Your task to perform on an android device: open chrome privacy settings Image 0: 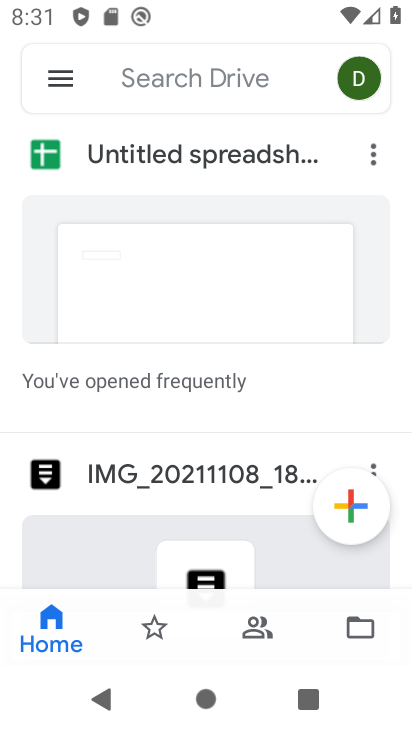
Step 0: press home button
Your task to perform on an android device: open chrome privacy settings Image 1: 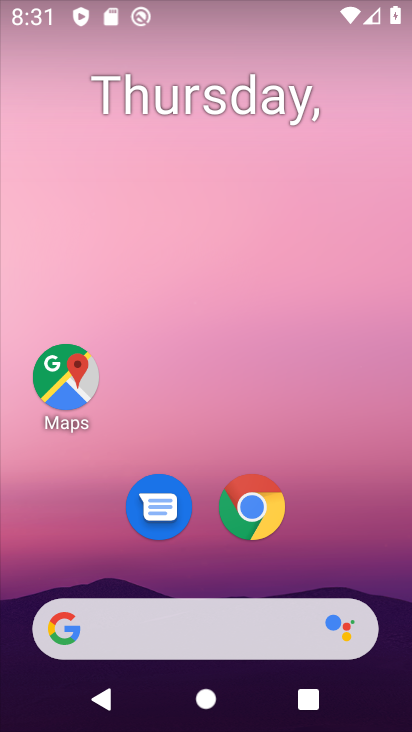
Step 1: click (256, 516)
Your task to perform on an android device: open chrome privacy settings Image 2: 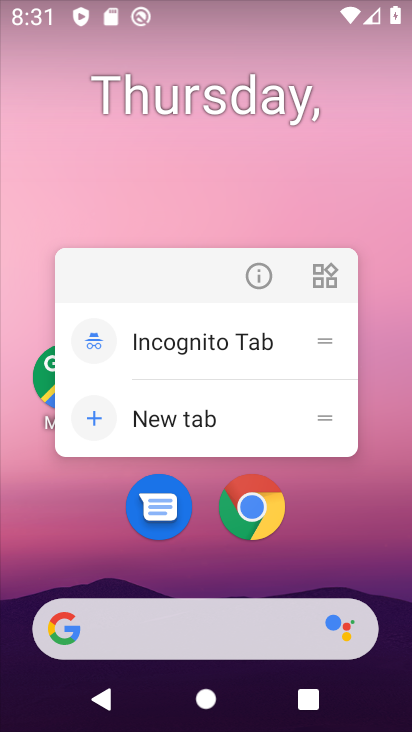
Step 2: click (266, 282)
Your task to perform on an android device: open chrome privacy settings Image 3: 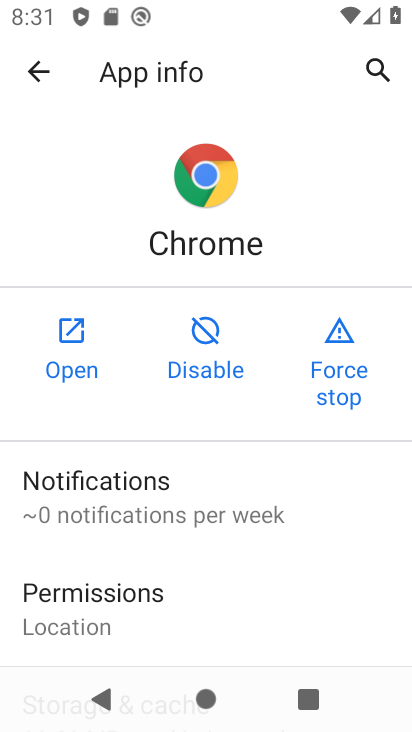
Step 3: click (85, 343)
Your task to perform on an android device: open chrome privacy settings Image 4: 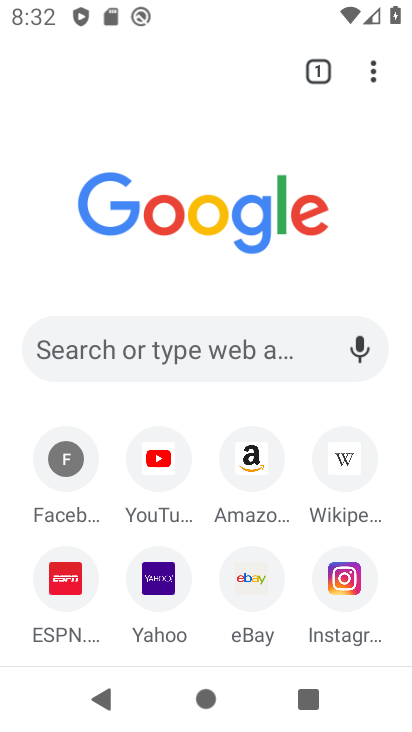
Step 4: click (378, 75)
Your task to perform on an android device: open chrome privacy settings Image 5: 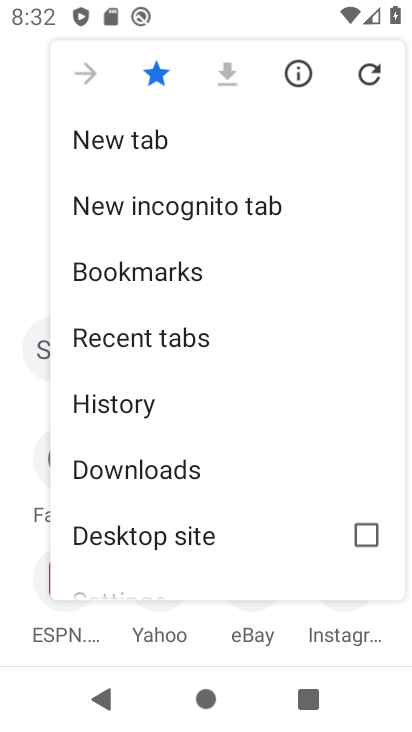
Step 5: drag from (155, 490) to (203, 228)
Your task to perform on an android device: open chrome privacy settings Image 6: 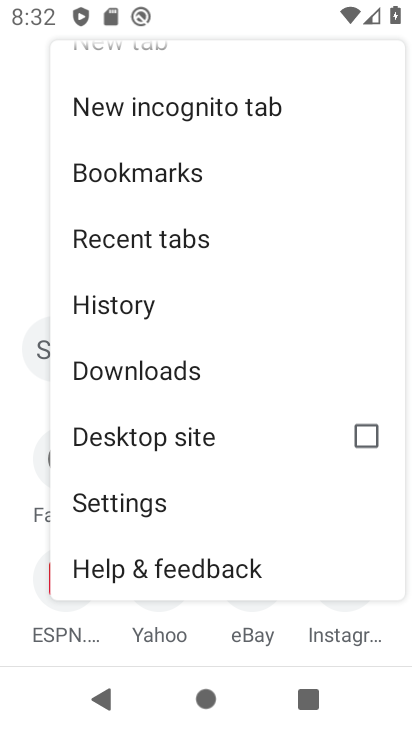
Step 6: click (115, 505)
Your task to perform on an android device: open chrome privacy settings Image 7: 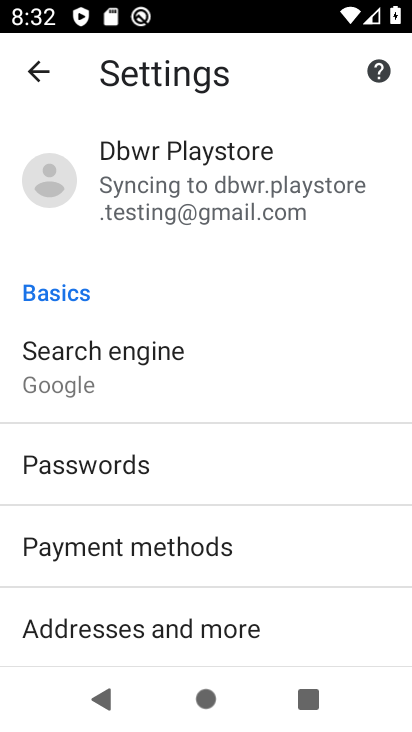
Step 7: drag from (147, 461) to (218, 125)
Your task to perform on an android device: open chrome privacy settings Image 8: 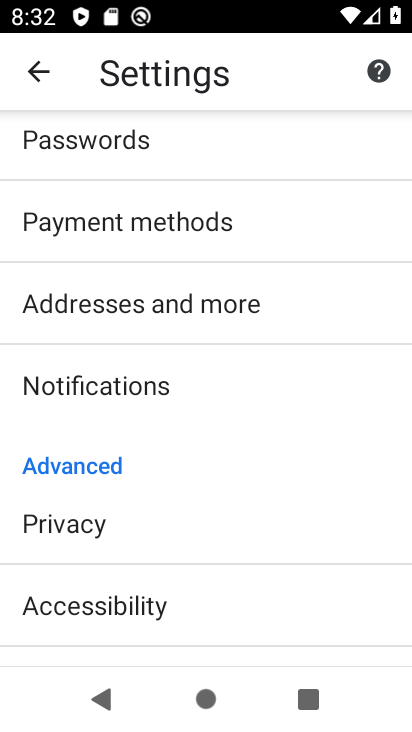
Step 8: drag from (103, 595) to (155, 219)
Your task to perform on an android device: open chrome privacy settings Image 9: 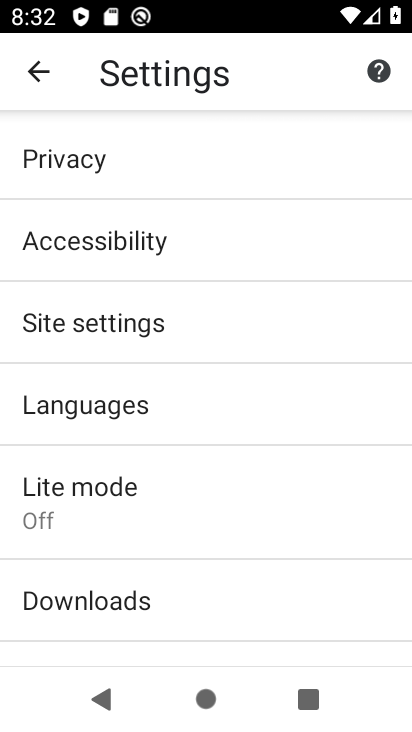
Step 9: click (99, 170)
Your task to perform on an android device: open chrome privacy settings Image 10: 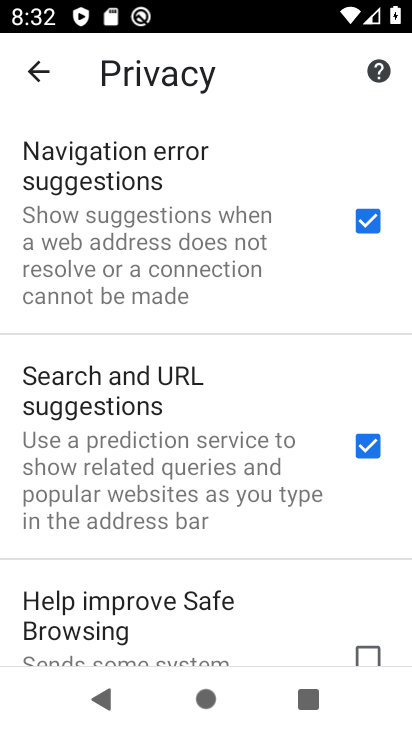
Step 10: task complete